Your task to perform on an android device: turn on wifi Image 0: 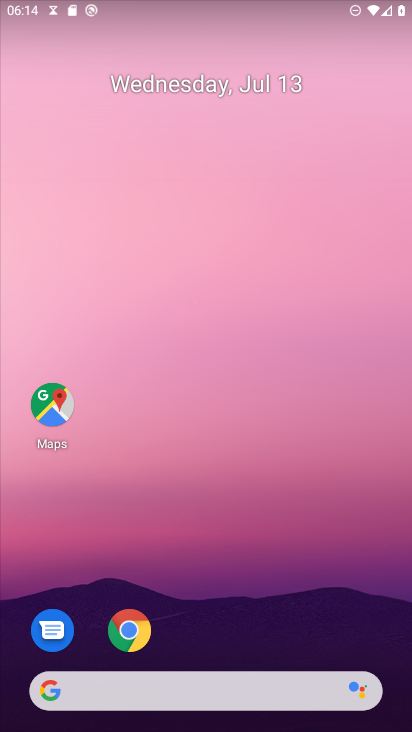
Step 0: drag from (115, 631) to (238, 30)
Your task to perform on an android device: turn on wifi Image 1: 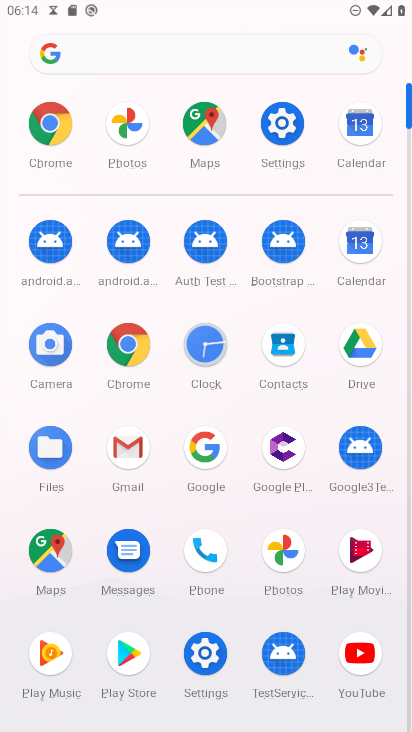
Step 1: click (269, 109)
Your task to perform on an android device: turn on wifi Image 2: 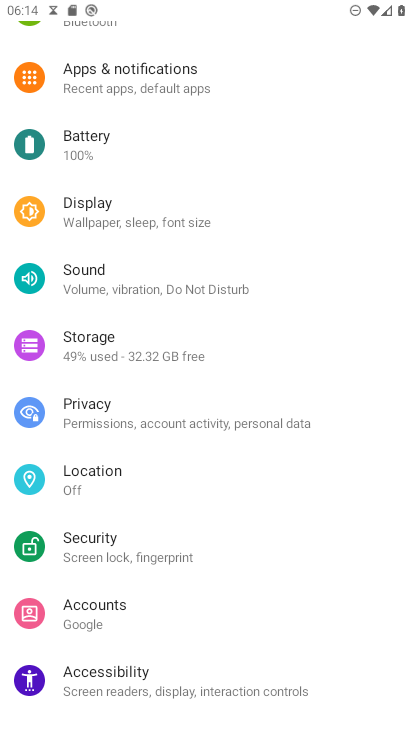
Step 2: drag from (185, 75) to (218, 453)
Your task to perform on an android device: turn on wifi Image 3: 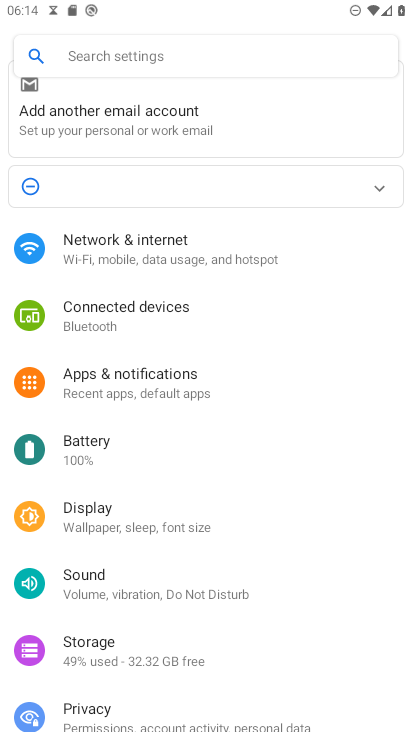
Step 3: click (161, 242)
Your task to perform on an android device: turn on wifi Image 4: 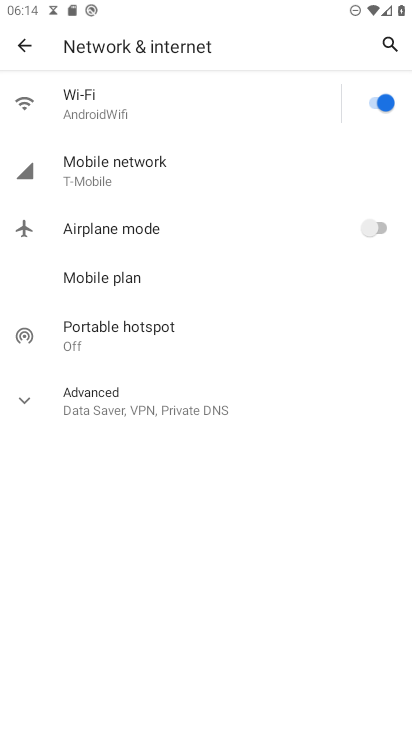
Step 4: task complete